Your task to perform on an android device: Open wifi settings Image 0: 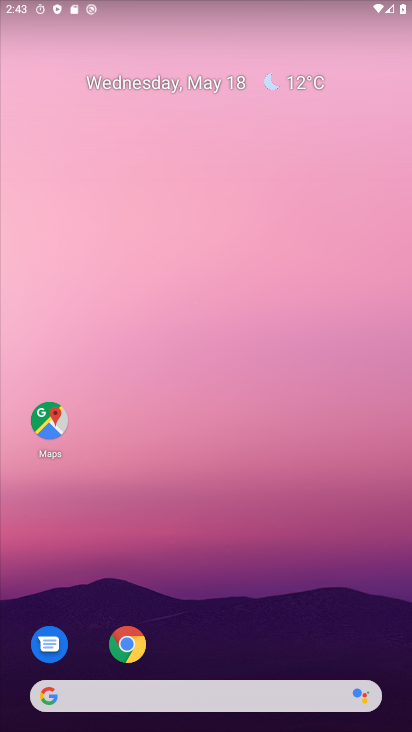
Step 0: drag from (393, 638) to (393, 352)
Your task to perform on an android device: Open wifi settings Image 1: 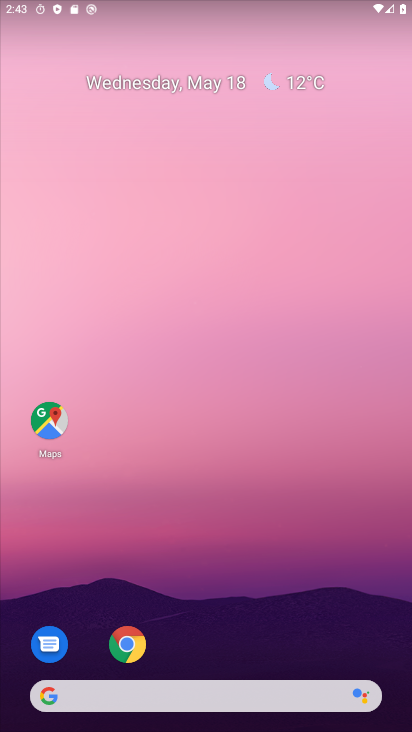
Step 1: drag from (388, 582) to (368, 255)
Your task to perform on an android device: Open wifi settings Image 2: 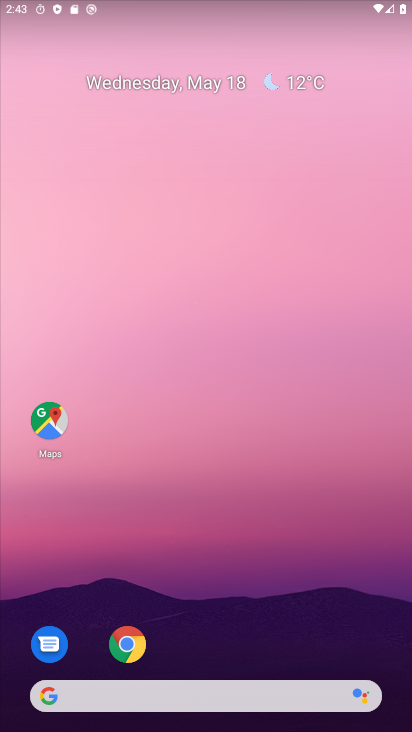
Step 2: drag from (374, 660) to (388, 301)
Your task to perform on an android device: Open wifi settings Image 3: 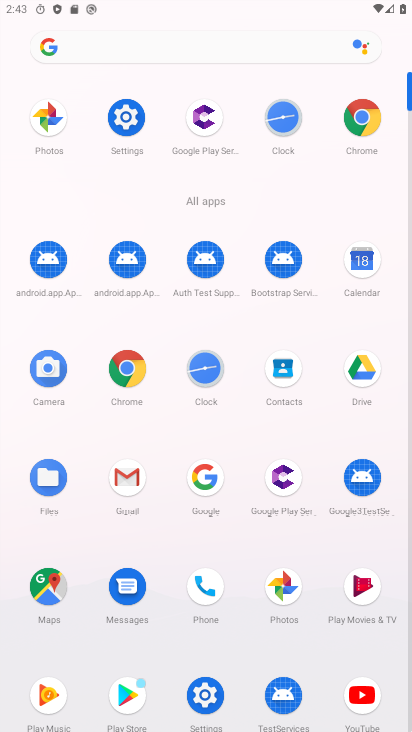
Step 3: click (135, 116)
Your task to perform on an android device: Open wifi settings Image 4: 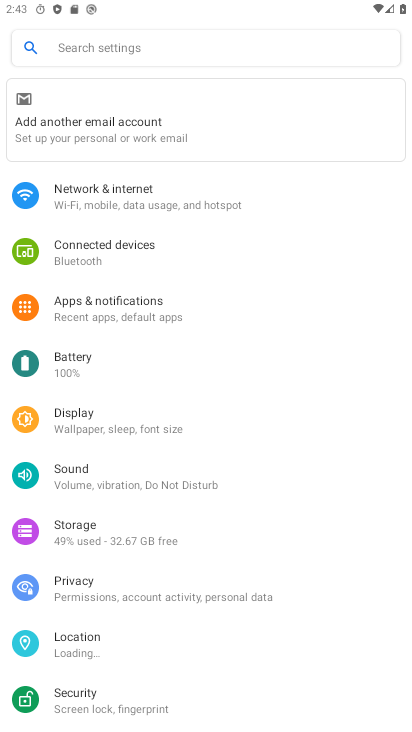
Step 4: click (124, 184)
Your task to perform on an android device: Open wifi settings Image 5: 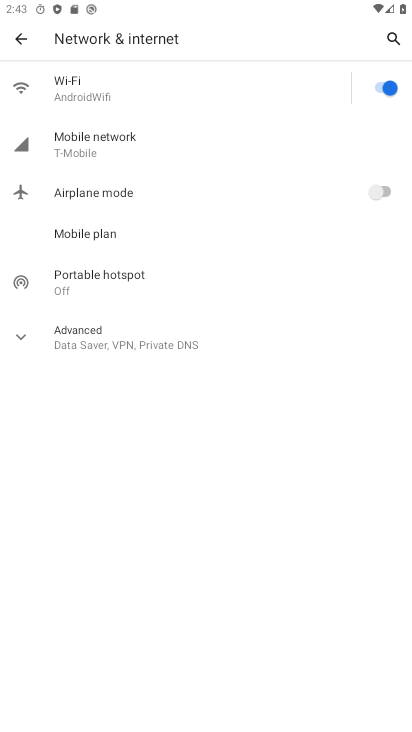
Step 5: click (125, 100)
Your task to perform on an android device: Open wifi settings Image 6: 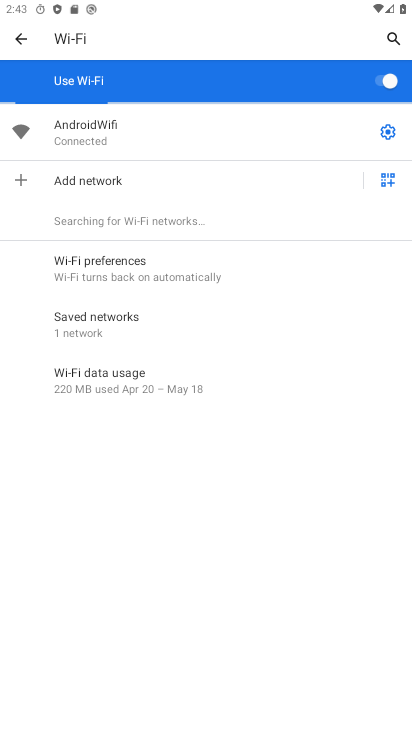
Step 6: click (385, 124)
Your task to perform on an android device: Open wifi settings Image 7: 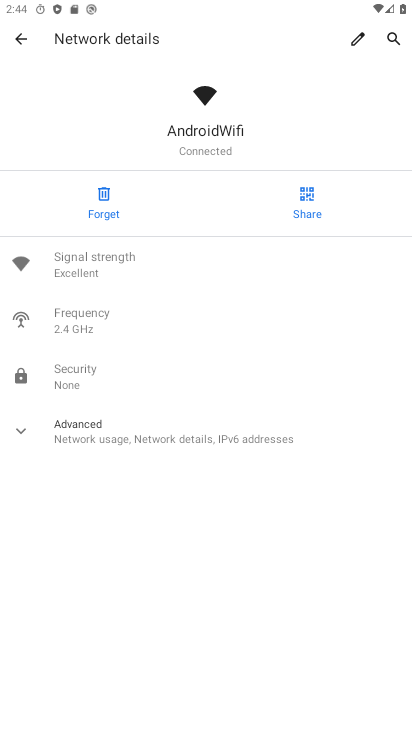
Step 7: task complete